Your task to perform on an android device: change the clock display to show seconds Image 0: 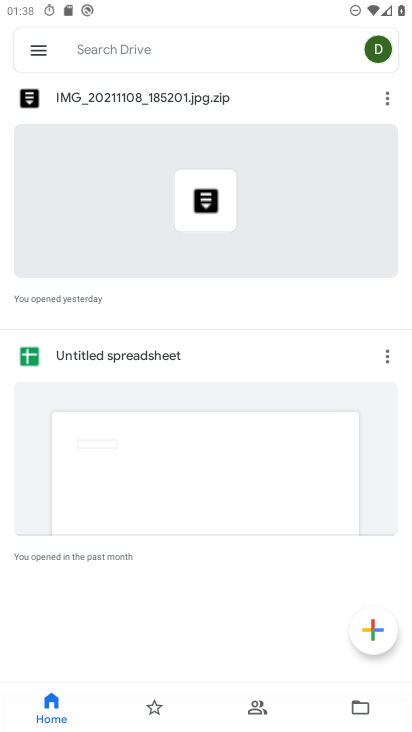
Step 0: press home button
Your task to perform on an android device: change the clock display to show seconds Image 1: 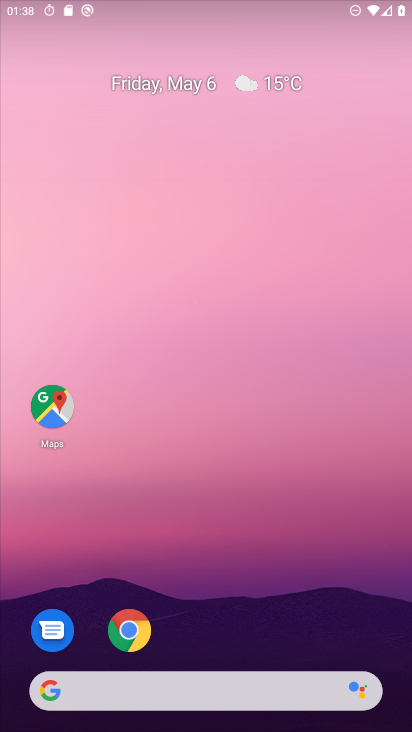
Step 1: drag from (241, 618) to (238, 83)
Your task to perform on an android device: change the clock display to show seconds Image 2: 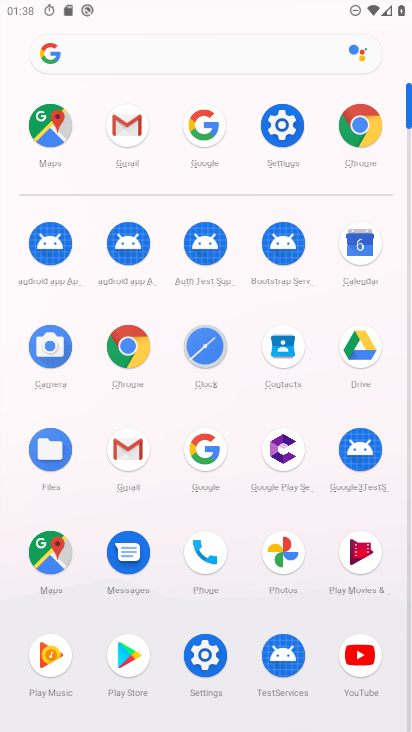
Step 2: click (212, 342)
Your task to perform on an android device: change the clock display to show seconds Image 3: 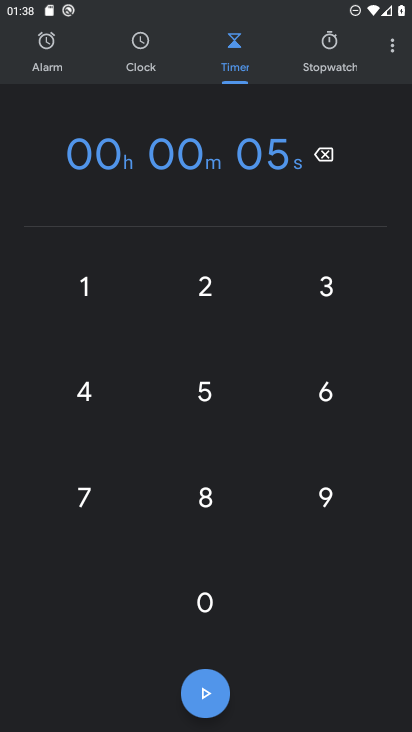
Step 3: click (393, 46)
Your task to perform on an android device: change the clock display to show seconds Image 4: 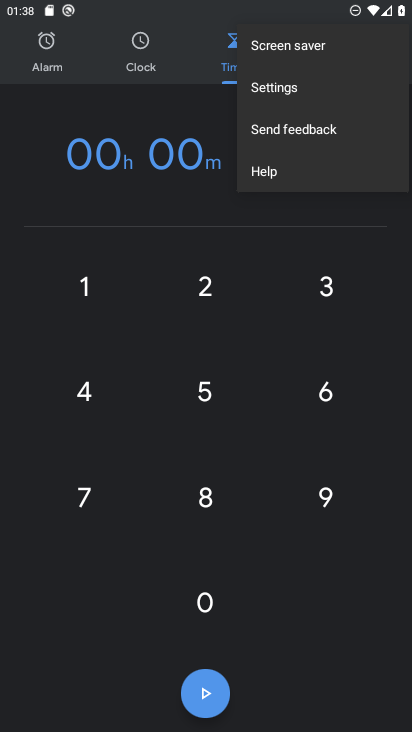
Step 4: click (288, 95)
Your task to perform on an android device: change the clock display to show seconds Image 5: 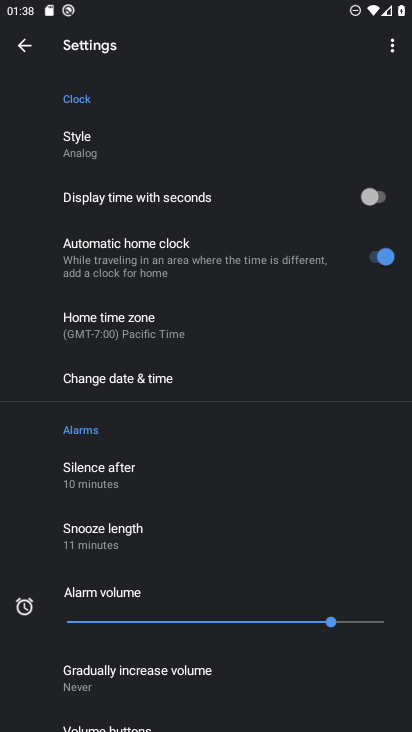
Step 5: click (382, 195)
Your task to perform on an android device: change the clock display to show seconds Image 6: 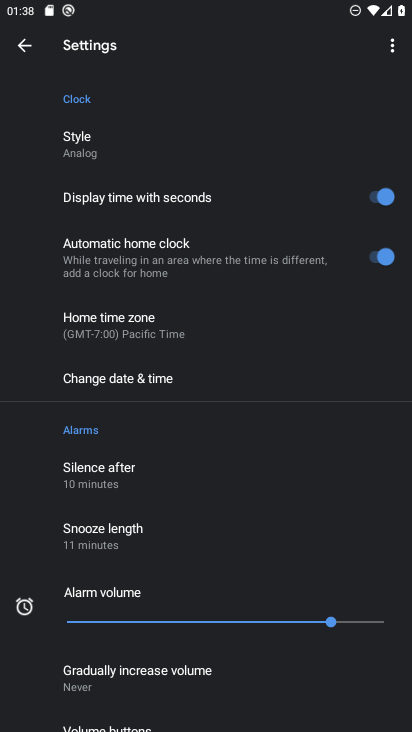
Step 6: task complete